Your task to perform on an android device: change notifications settings Image 0: 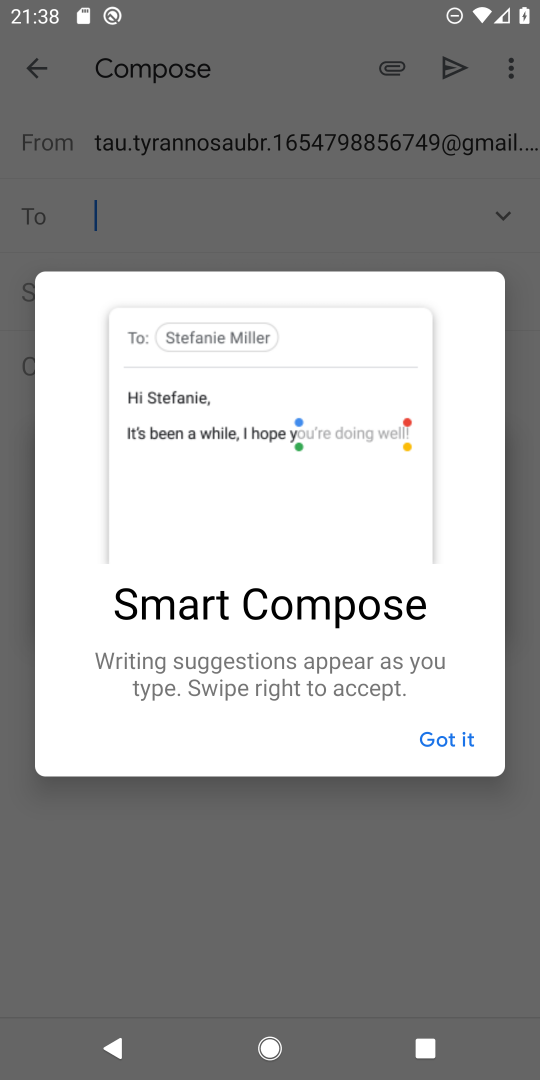
Step 0: press home button
Your task to perform on an android device: change notifications settings Image 1: 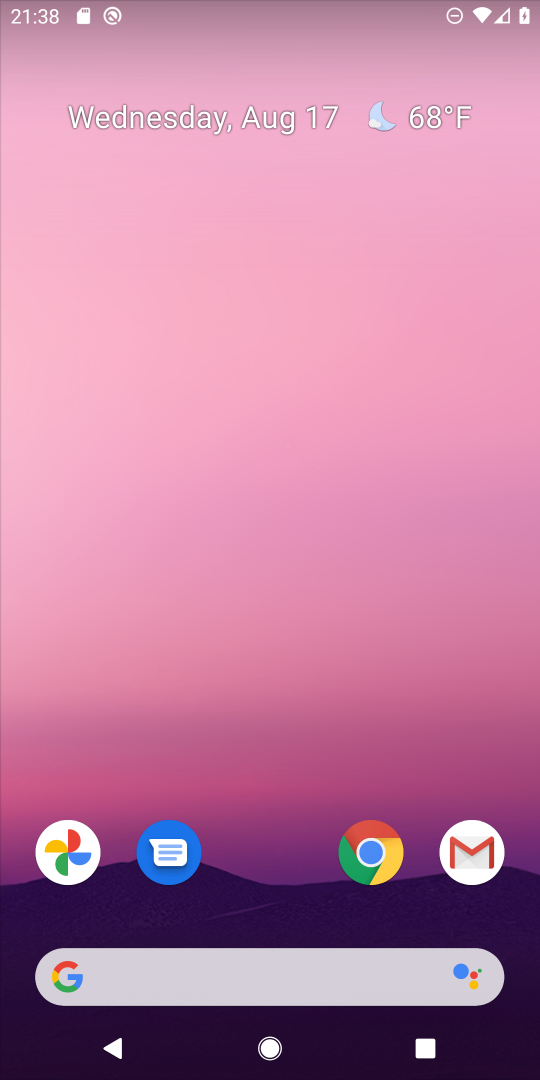
Step 1: drag from (255, 900) to (219, 102)
Your task to perform on an android device: change notifications settings Image 2: 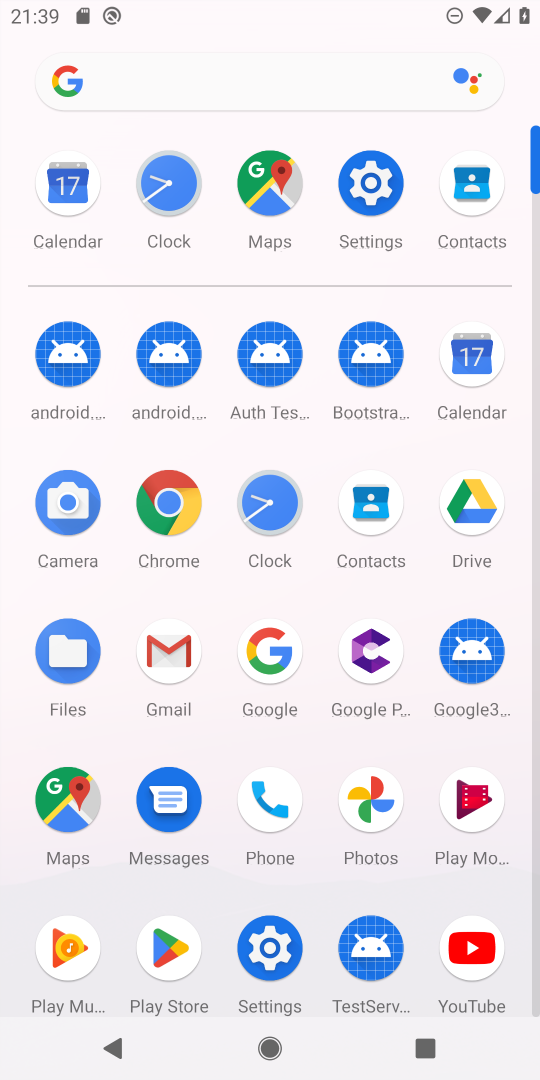
Step 2: click (366, 181)
Your task to perform on an android device: change notifications settings Image 3: 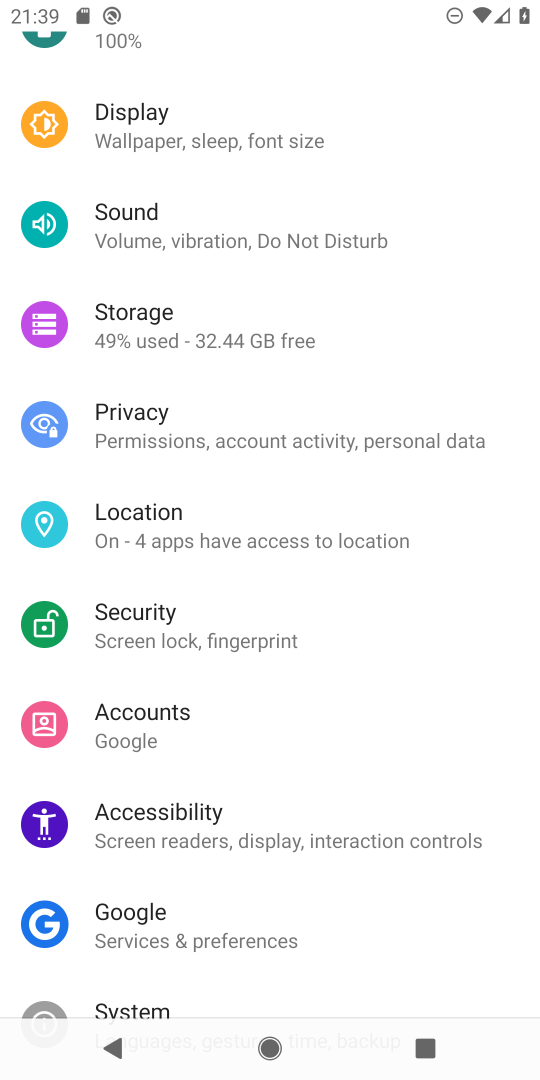
Step 3: drag from (264, 185) to (262, 592)
Your task to perform on an android device: change notifications settings Image 4: 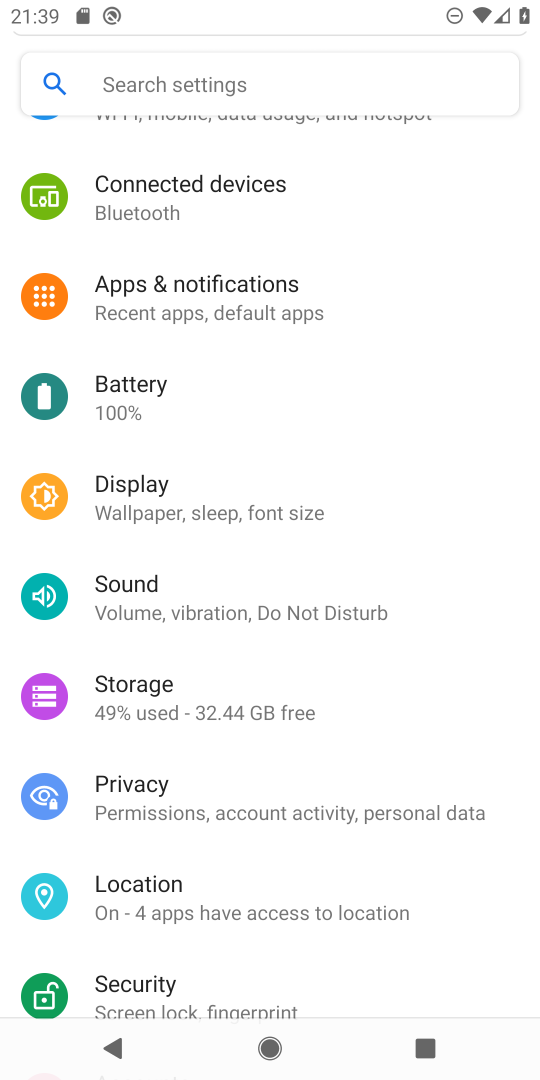
Step 4: click (224, 282)
Your task to perform on an android device: change notifications settings Image 5: 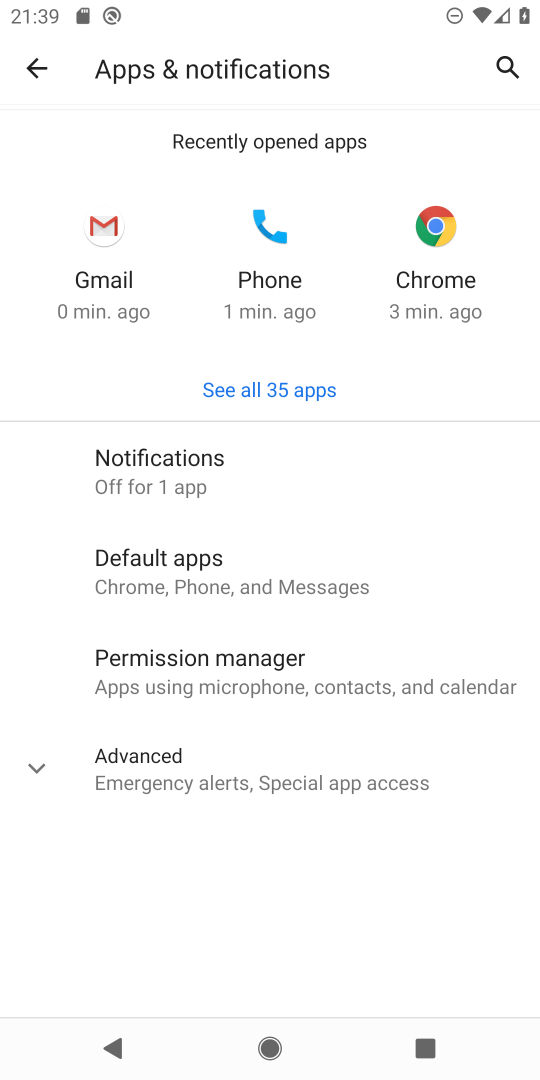
Step 5: click (157, 454)
Your task to perform on an android device: change notifications settings Image 6: 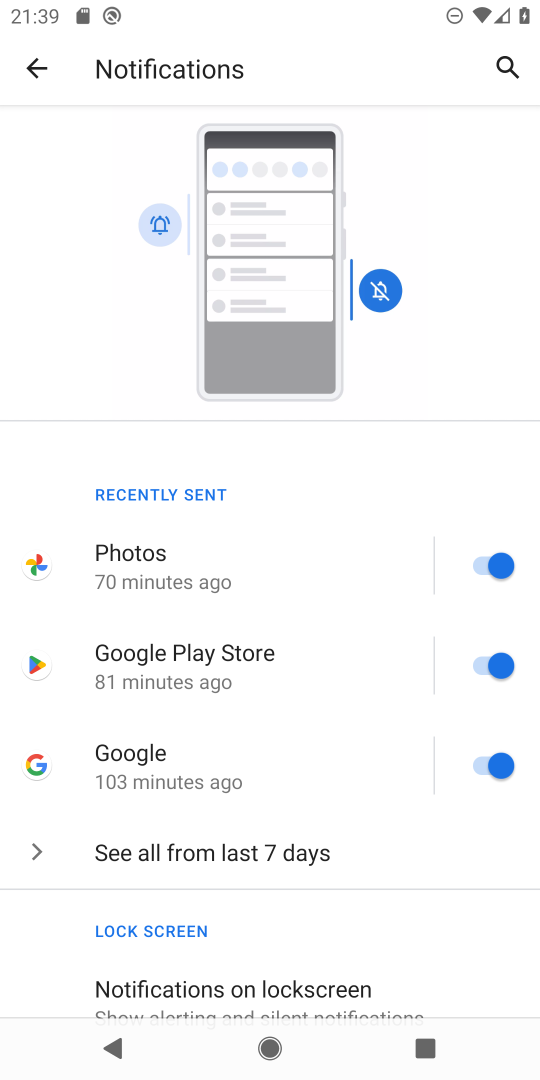
Step 6: drag from (314, 781) to (316, 494)
Your task to perform on an android device: change notifications settings Image 7: 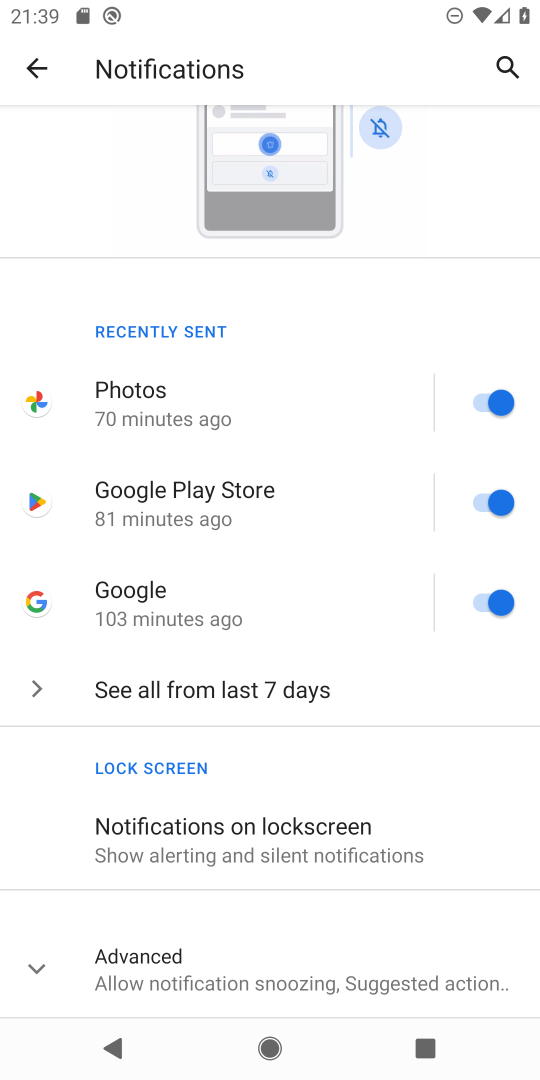
Step 7: drag from (290, 763) to (287, 495)
Your task to perform on an android device: change notifications settings Image 8: 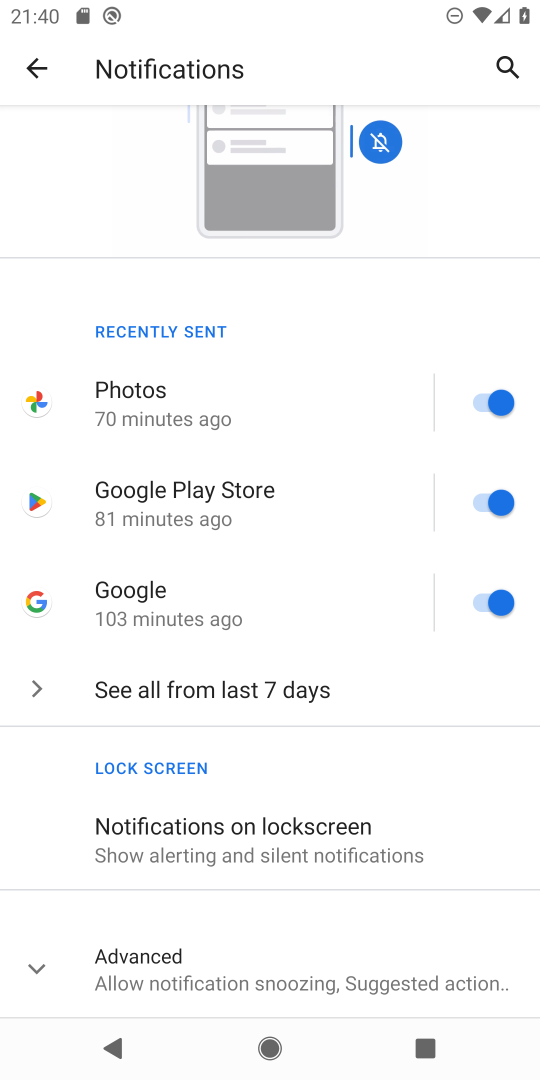
Step 8: drag from (318, 359) to (300, 675)
Your task to perform on an android device: change notifications settings Image 9: 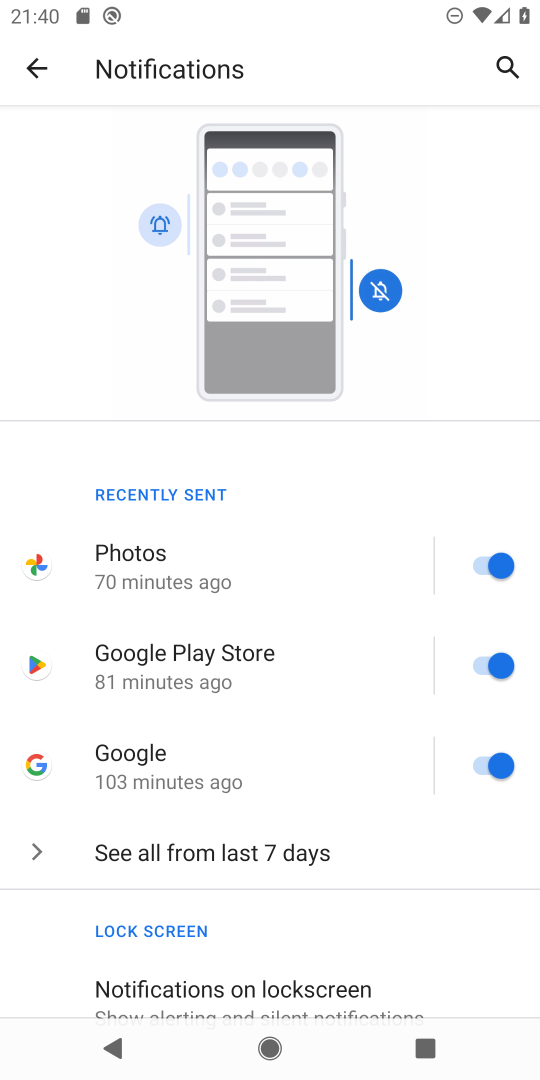
Step 9: drag from (301, 800) to (274, 391)
Your task to perform on an android device: change notifications settings Image 10: 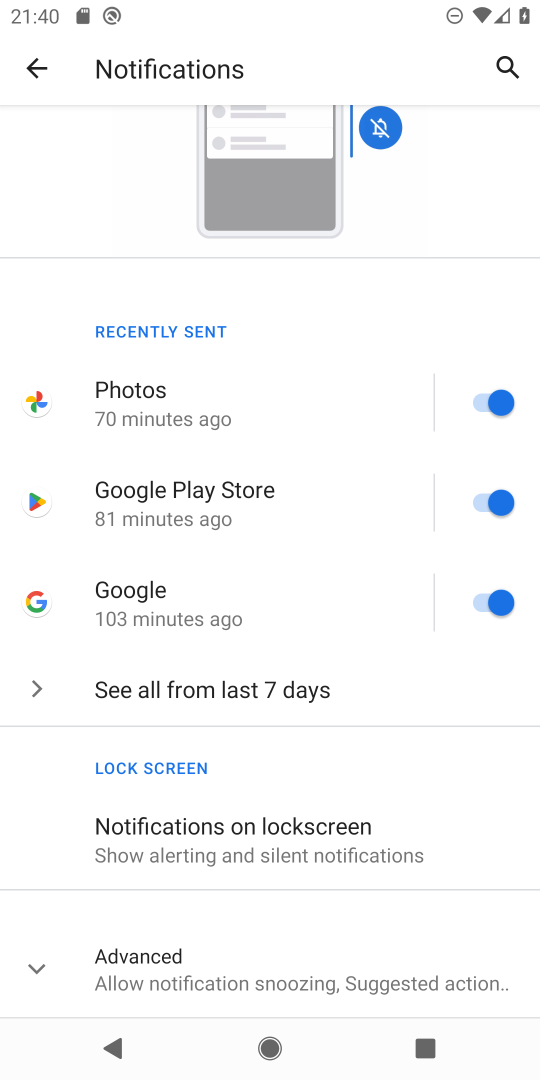
Step 10: click (211, 683)
Your task to perform on an android device: change notifications settings Image 11: 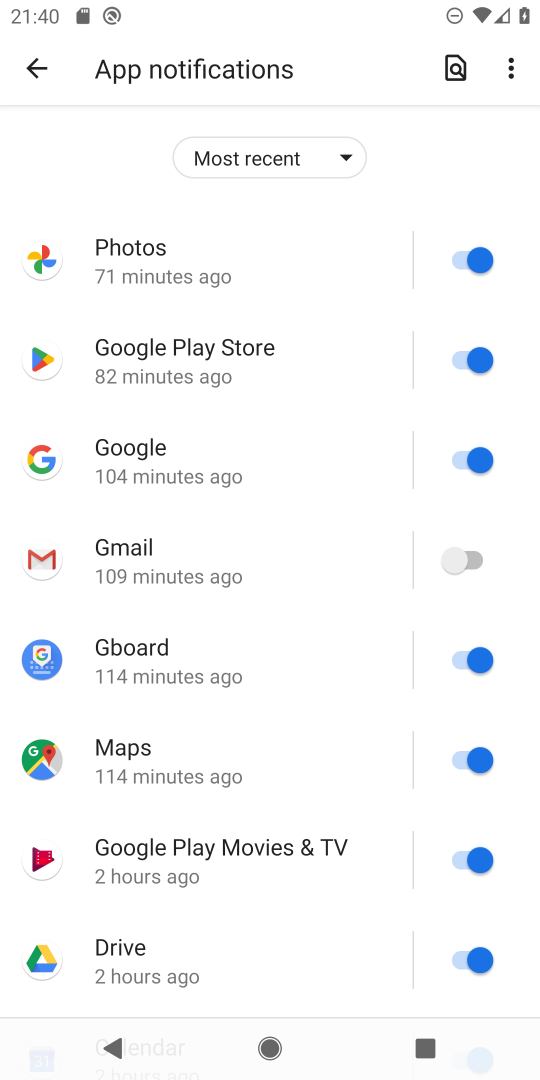
Step 11: click (338, 157)
Your task to perform on an android device: change notifications settings Image 12: 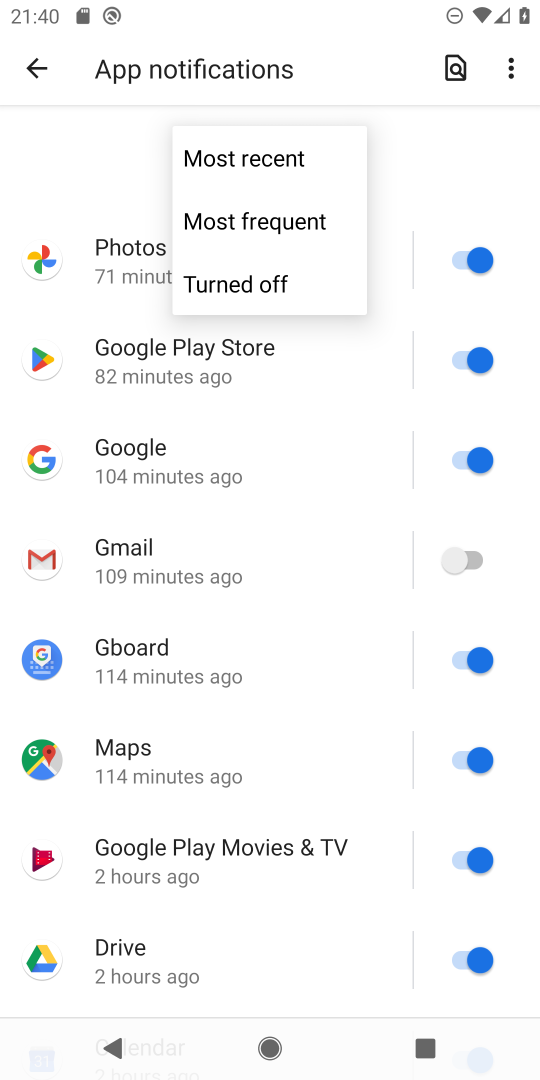
Step 12: click (246, 278)
Your task to perform on an android device: change notifications settings Image 13: 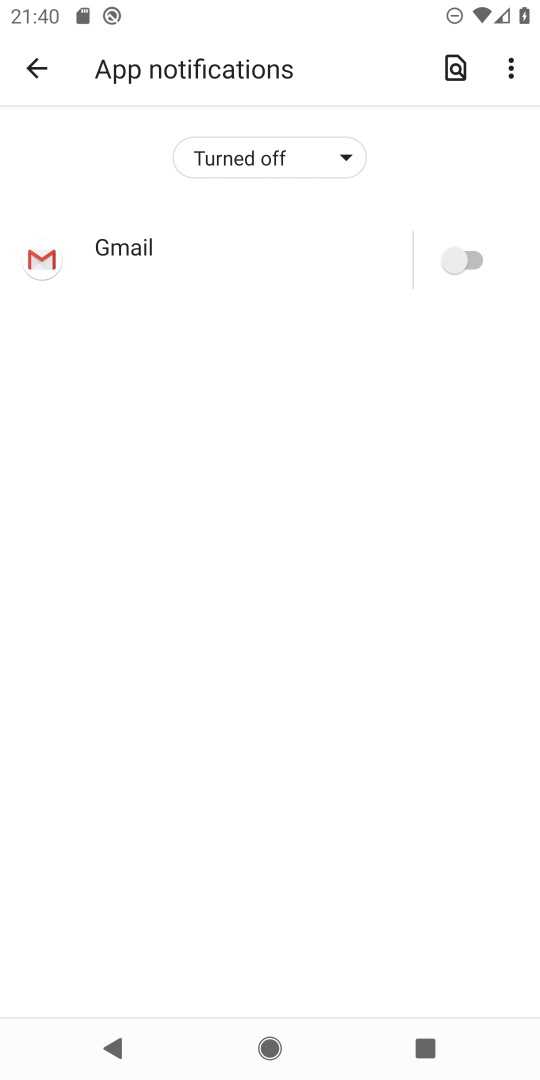
Step 13: task complete